Your task to perform on an android device: delete a single message in the gmail app Image 0: 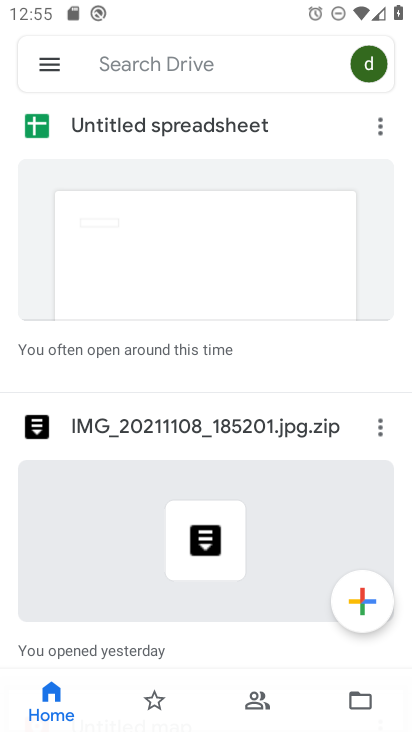
Step 0: press back button
Your task to perform on an android device: delete a single message in the gmail app Image 1: 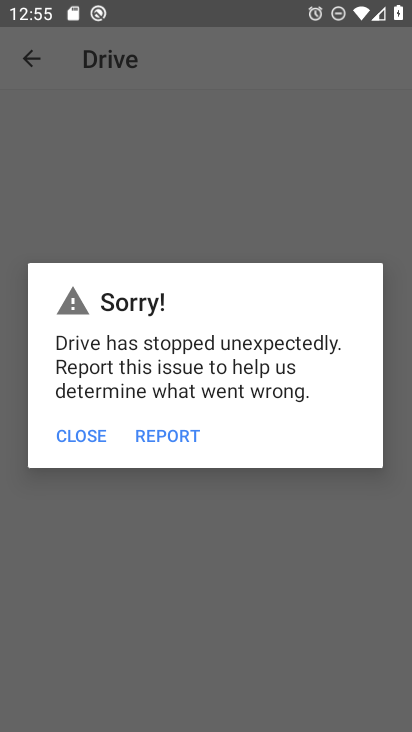
Step 1: press home button
Your task to perform on an android device: delete a single message in the gmail app Image 2: 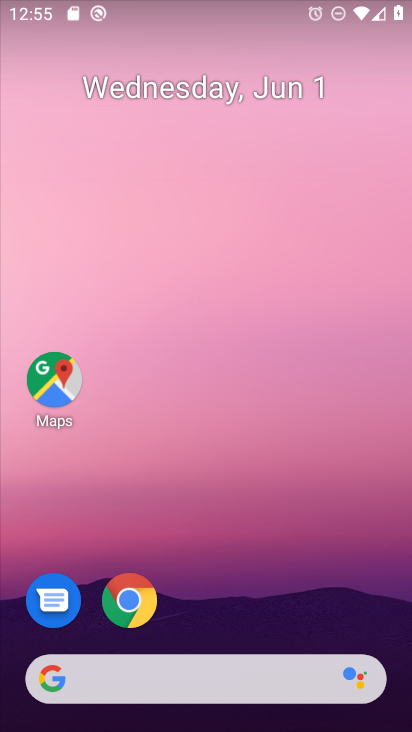
Step 2: drag from (200, 616) to (233, 81)
Your task to perform on an android device: delete a single message in the gmail app Image 3: 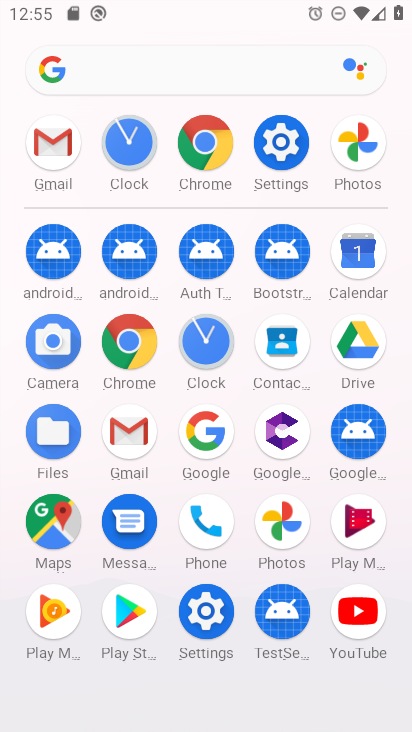
Step 3: click (130, 423)
Your task to perform on an android device: delete a single message in the gmail app Image 4: 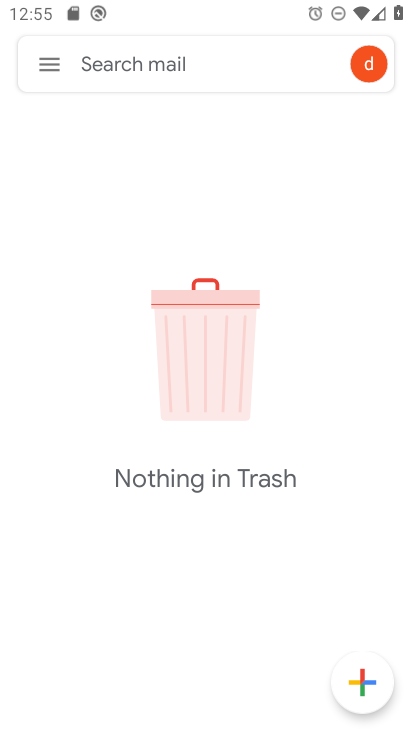
Step 4: click (46, 61)
Your task to perform on an android device: delete a single message in the gmail app Image 5: 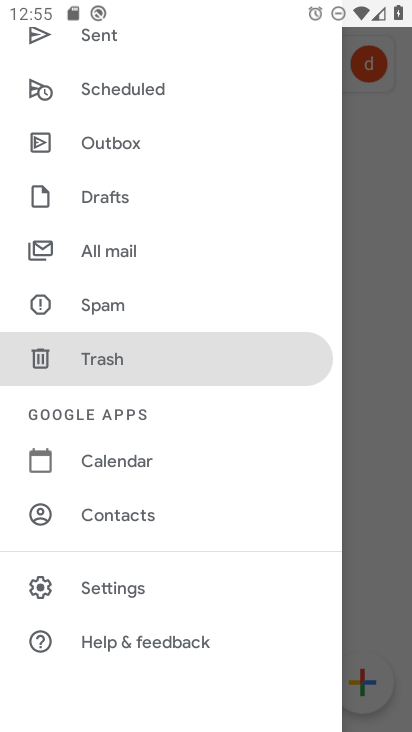
Step 5: click (145, 251)
Your task to perform on an android device: delete a single message in the gmail app Image 6: 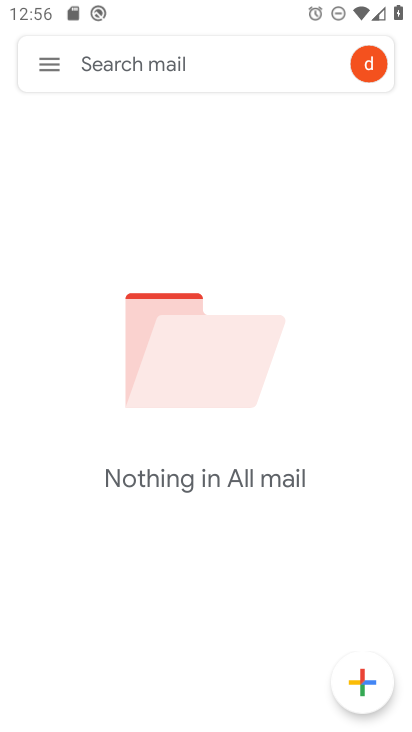
Step 6: task complete